Your task to perform on an android device: turn off location Image 0: 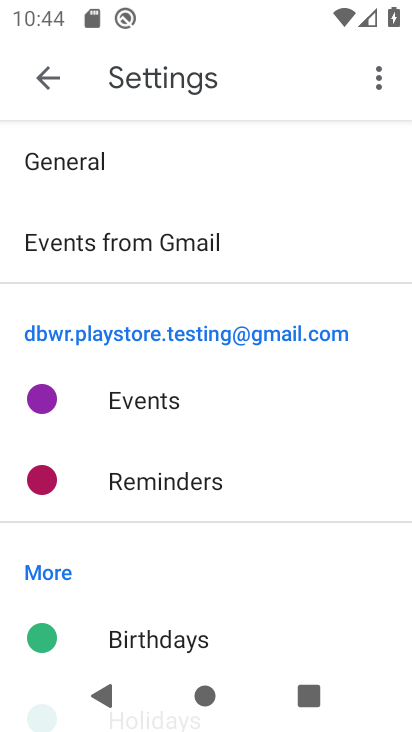
Step 0: press home button
Your task to perform on an android device: turn off location Image 1: 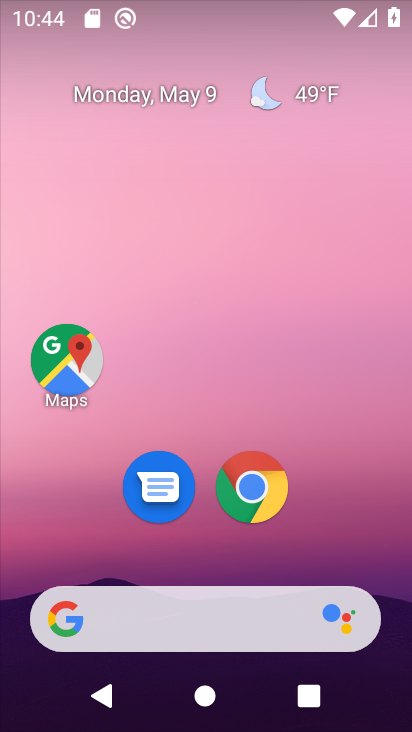
Step 1: drag from (322, 528) to (177, 103)
Your task to perform on an android device: turn off location Image 2: 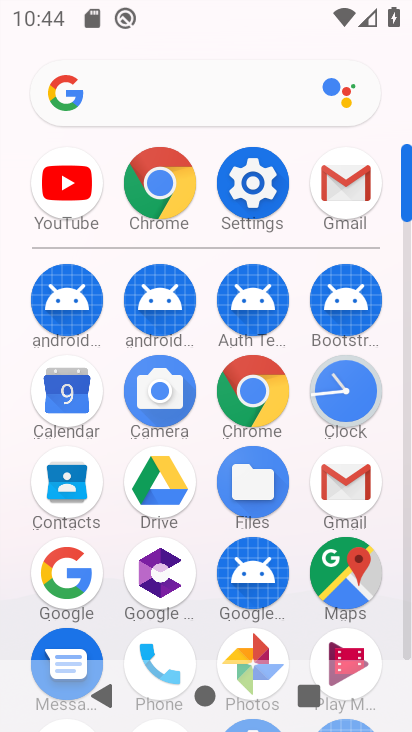
Step 2: click (251, 188)
Your task to perform on an android device: turn off location Image 3: 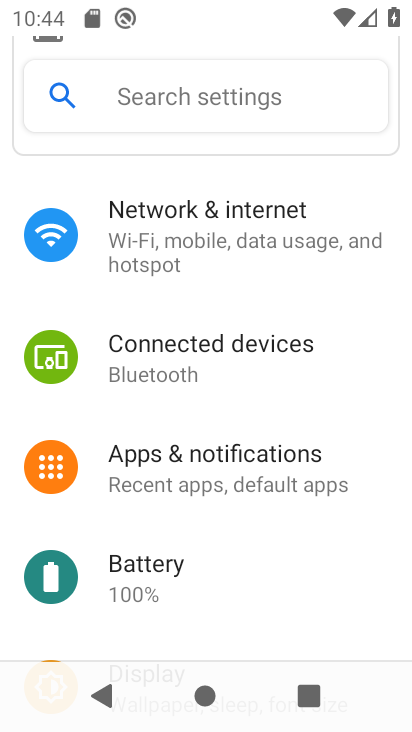
Step 3: drag from (211, 621) to (214, 292)
Your task to perform on an android device: turn off location Image 4: 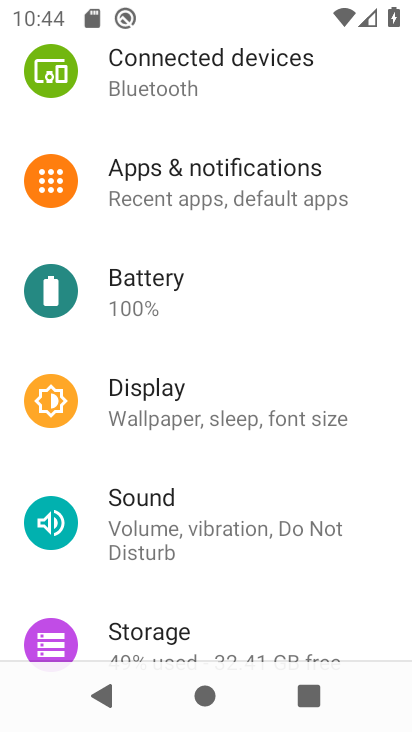
Step 4: drag from (194, 581) to (209, 278)
Your task to perform on an android device: turn off location Image 5: 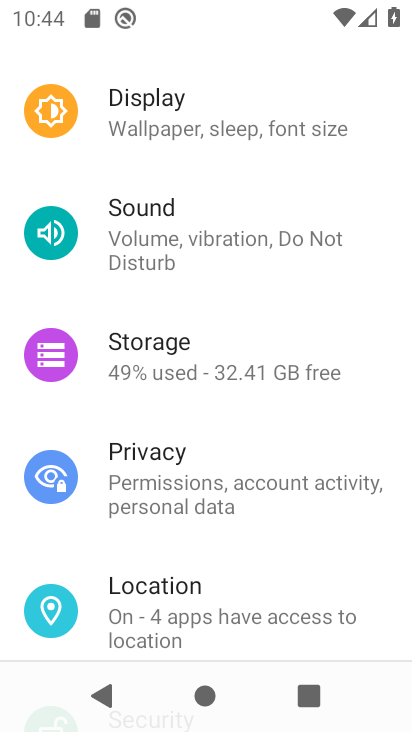
Step 5: click (178, 623)
Your task to perform on an android device: turn off location Image 6: 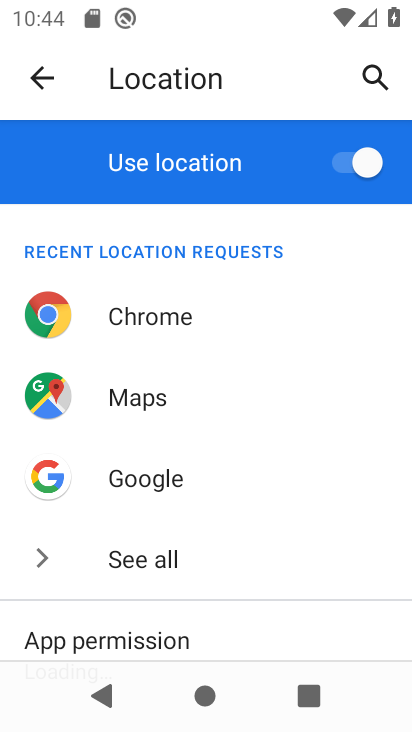
Step 6: click (353, 152)
Your task to perform on an android device: turn off location Image 7: 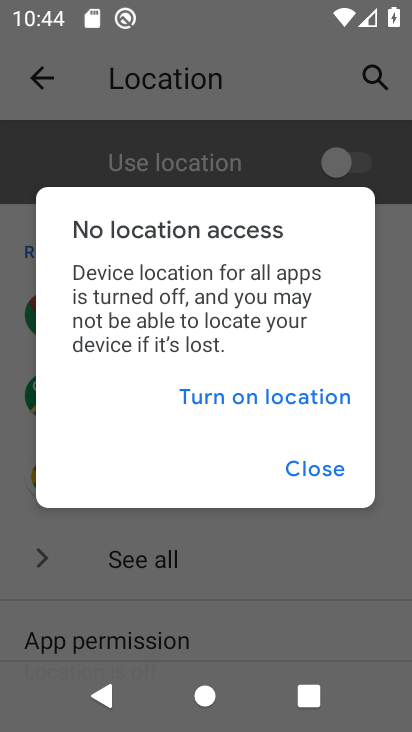
Step 7: click (330, 476)
Your task to perform on an android device: turn off location Image 8: 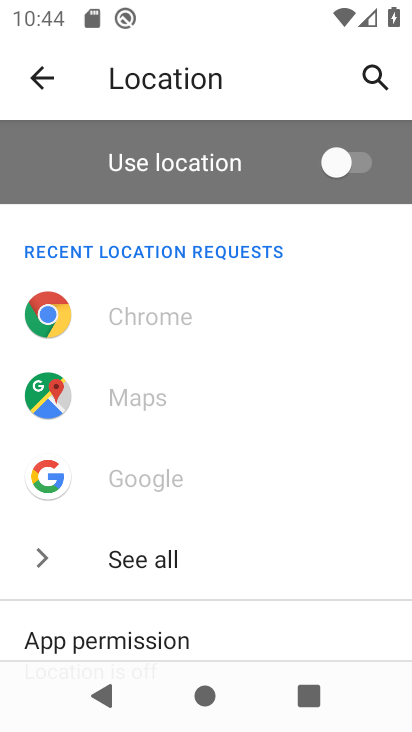
Step 8: task complete